Your task to perform on an android device: Open Android settings Image 0: 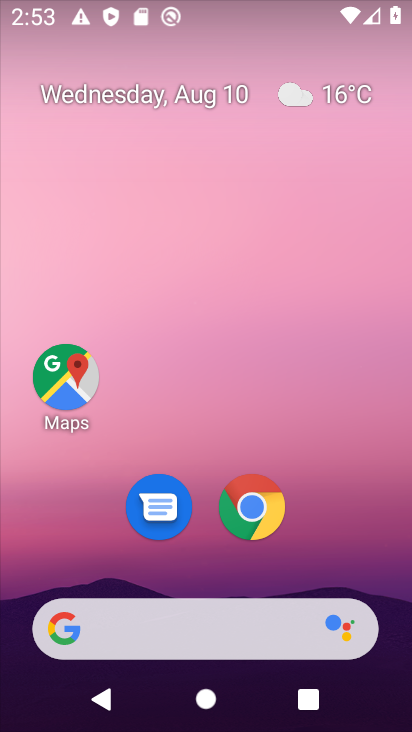
Step 0: drag from (357, 534) to (334, 73)
Your task to perform on an android device: Open Android settings Image 1: 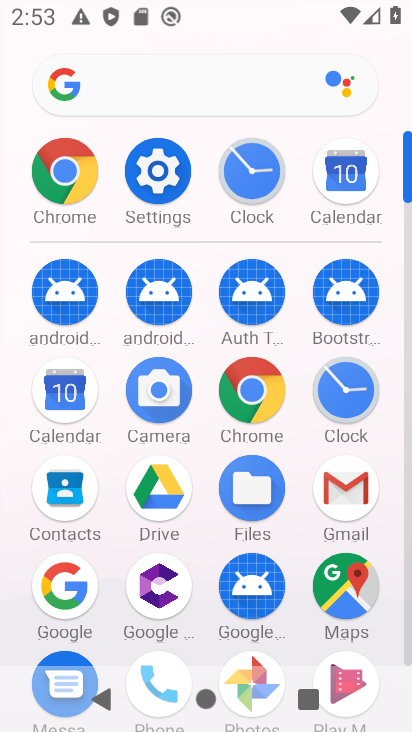
Step 1: click (138, 177)
Your task to perform on an android device: Open Android settings Image 2: 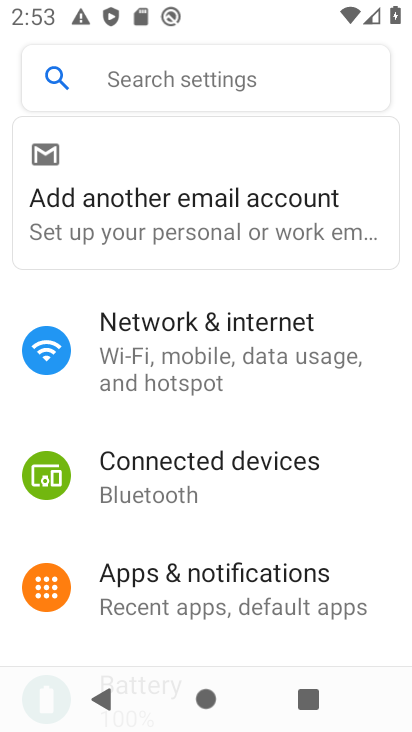
Step 2: task complete